Your task to perform on an android device: Show me recent news Image 0: 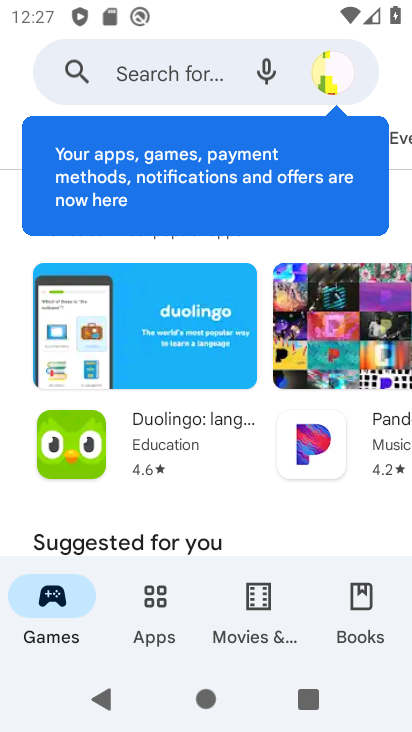
Step 0: press home button
Your task to perform on an android device: Show me recent news Image 1: 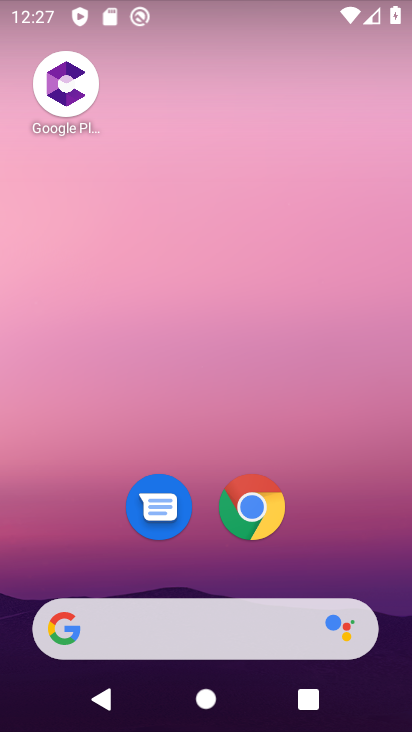
Step 1: drag from (371, 545) to (288, 117)
Your task to perform on an android device: Show me recent news Image 2: 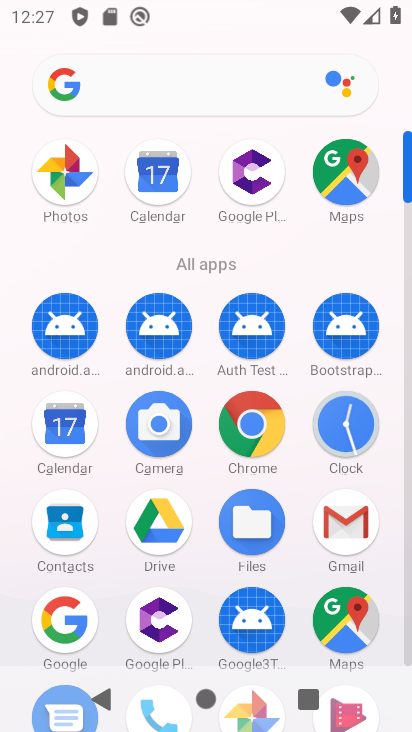
Step 2: click (265, 432)
Your task to perform on an android device: Show me recent news Image 3: 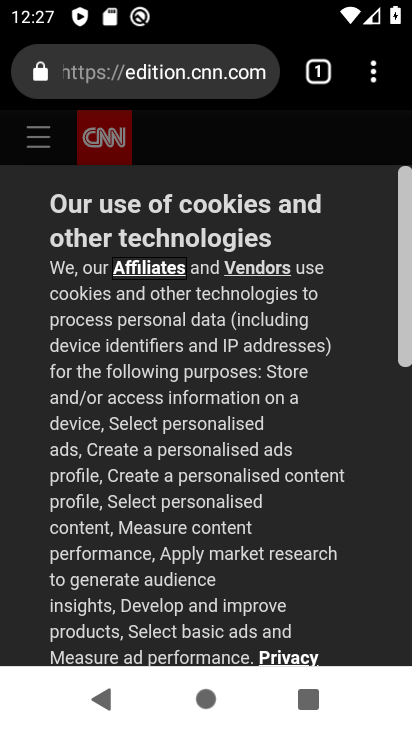
Step 3: click (195, 80)
Your task to perform on an android device: Show me recent news Image 4: 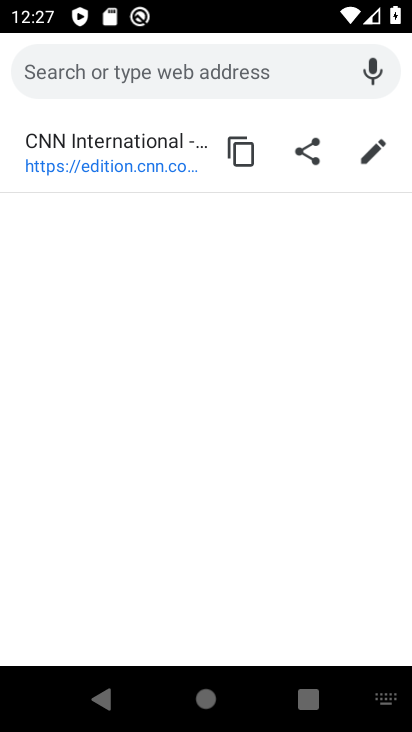
Step 4: type "recent news"
Your task to perform on an android device: Show me recent news Image 5: 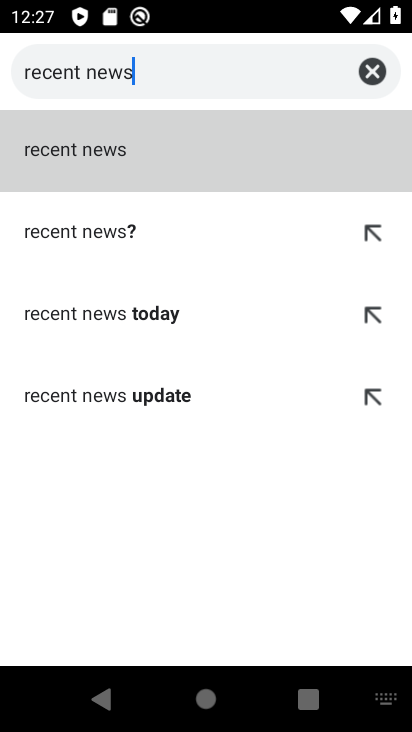
Step 5: click (221, 136)
Your task to perform on an android device: Show me recent news Image 6: 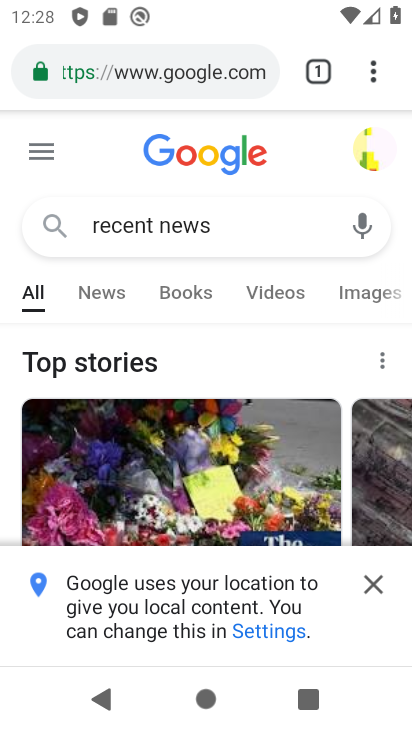
Step 6: click (372, 585)
Your task to perform on an android device: Show me recent news Image 7: 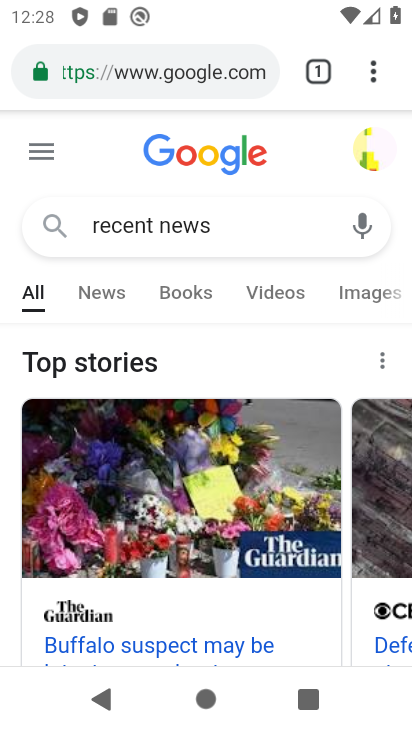
Step 7: task complete